Your task to perform on an android device: change the clock display to analog Image 0: 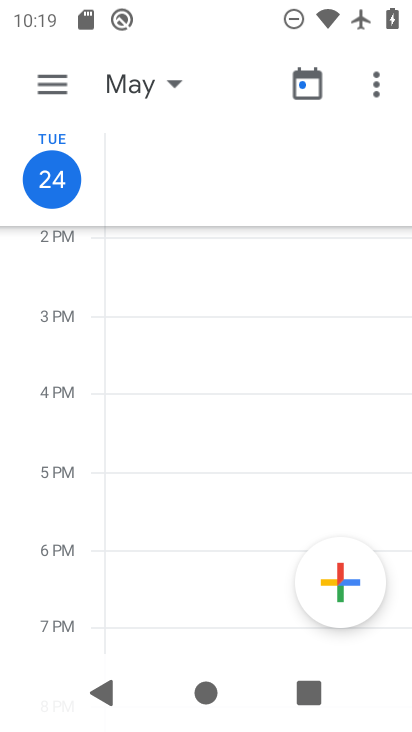
Step 0: press home button
Your task to perform on an android device: change the clock display to analog Image 1: 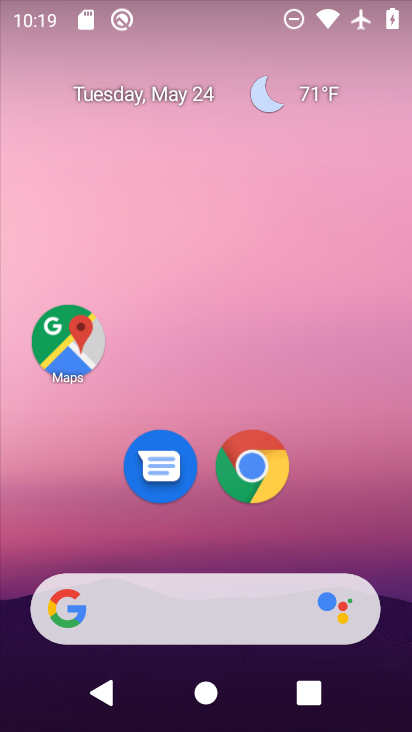
Step 1: drag from (228, 541) to (212, 14)
Your task to perform on an android device: change the clock display to analog Image 2: 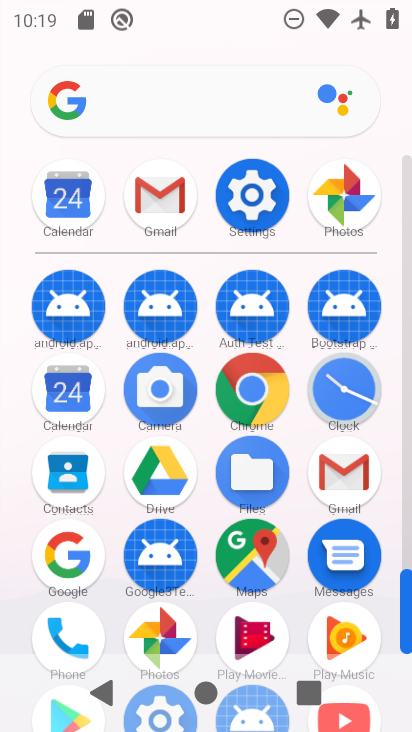
Step 2: click (355, 384)
Your task to perform on an android device: change the clock display to analog Image 3: 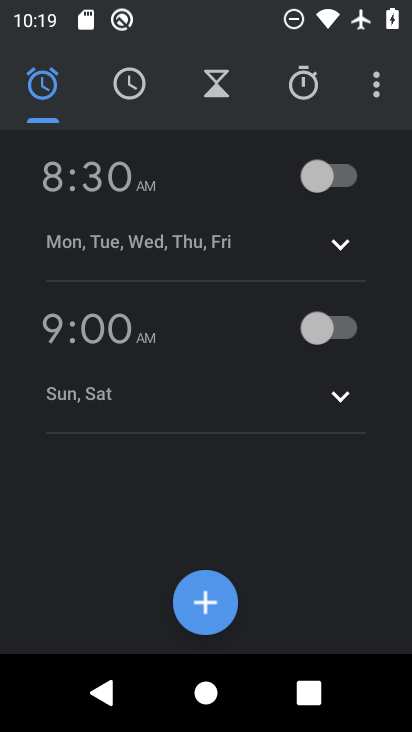
Step 3: click (375, 100)
Your task to perform on an android device: change the clock display to analog Image 4: 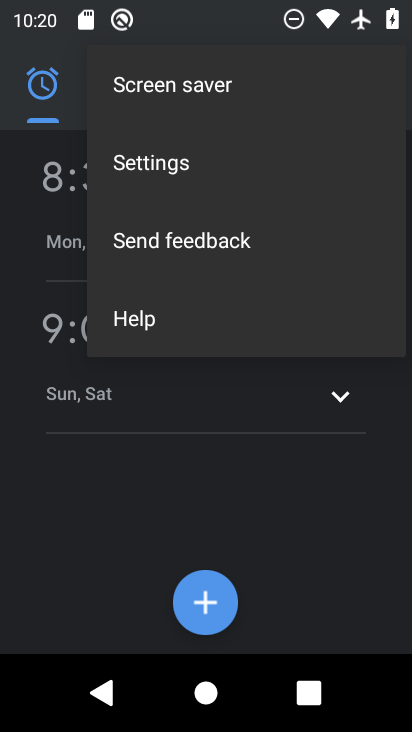
Step 4: click (169, 180)
Your task to perform on an android device: change the clock display to analog Image 5: 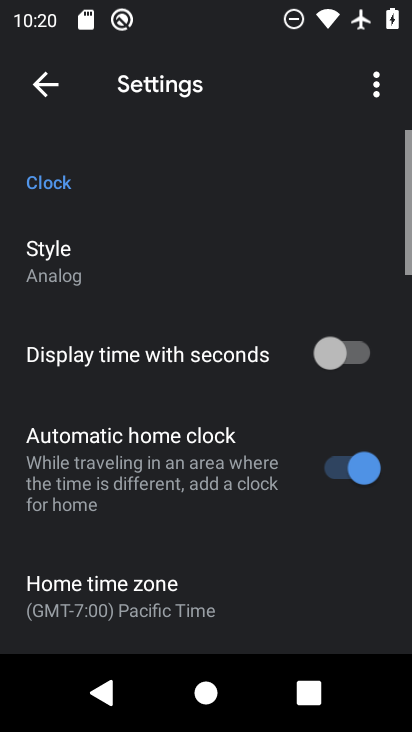
Step 5: click (82, 282)
Your task to perform on an android device: change the clock display to analog Image 6: 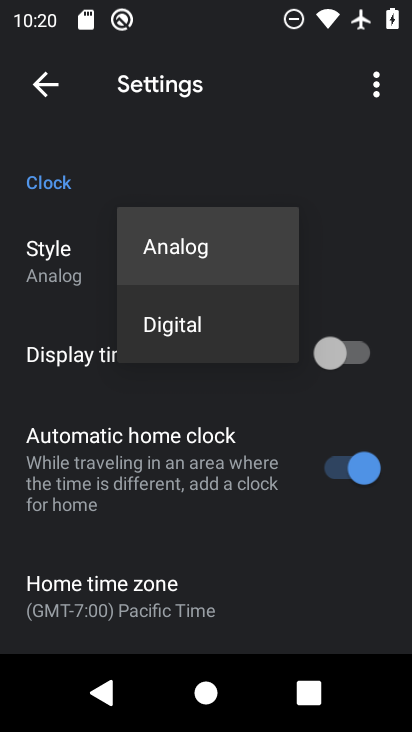
Step 6: task complete